Your task to perform on an android device: Open Chrome and go to the settings page Image 0: 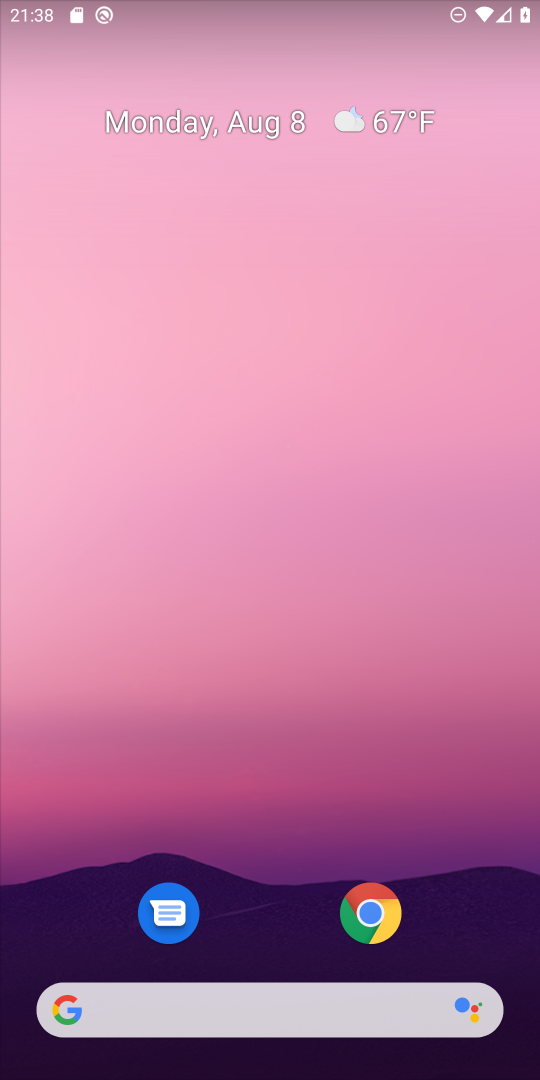
Step 0: click (369, 914)
Your task to perform on an android device: Open Chrome and go to the settings page Image 1: 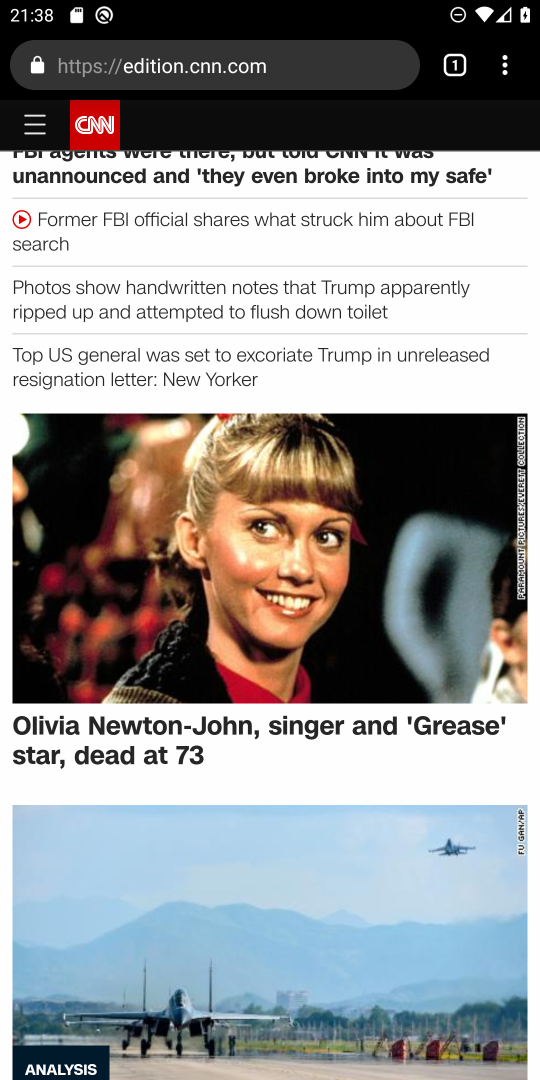
Step 1: task complete